Your task to perform on an android device: toggle airplane mode Image 0: 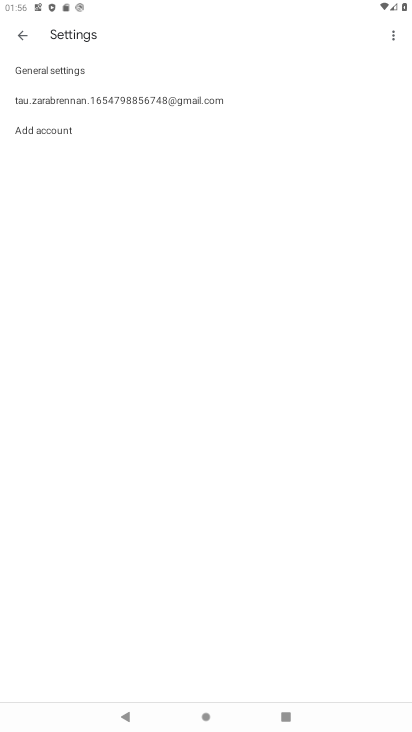
Step 0: press home button
Your task to perform on an android device: toggle airplane mode Image 1: 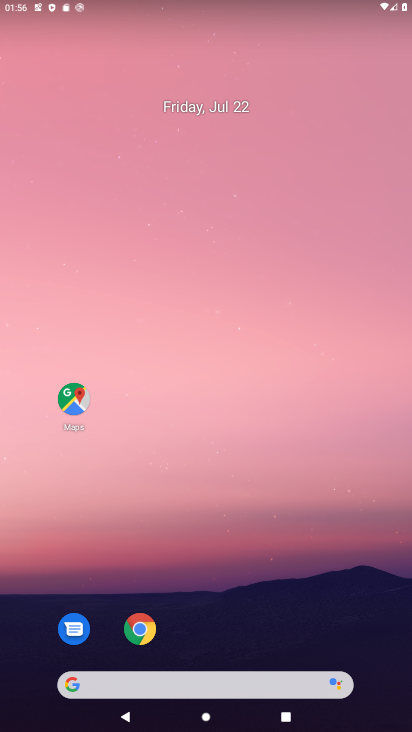
Step 1: drag from (369, 29) to (301, 478)
Your task to perform on an android device: toggle airplane mode Image 2: 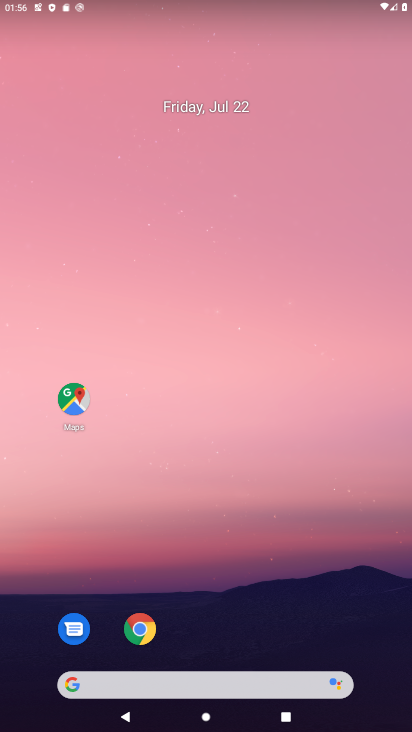
Step 2: drag from (333, 5) to (309, 521)
Your task to perform on an android device: toggle airplane mode Image 3: 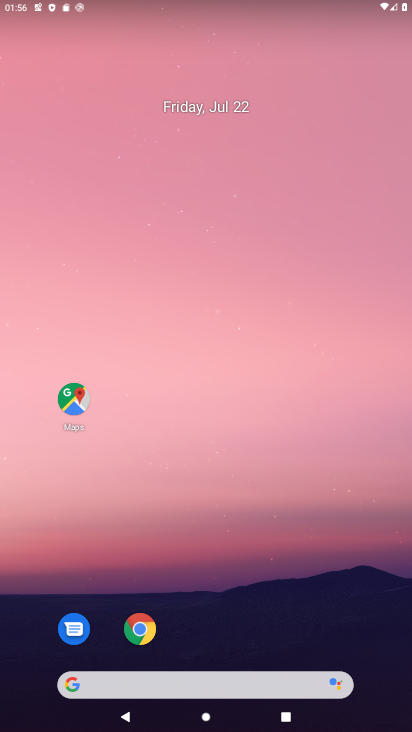
Step 3: drag from (278, 18) to (271, 385)
Your task to perform on an android device: toggle airplane mode Image 4: 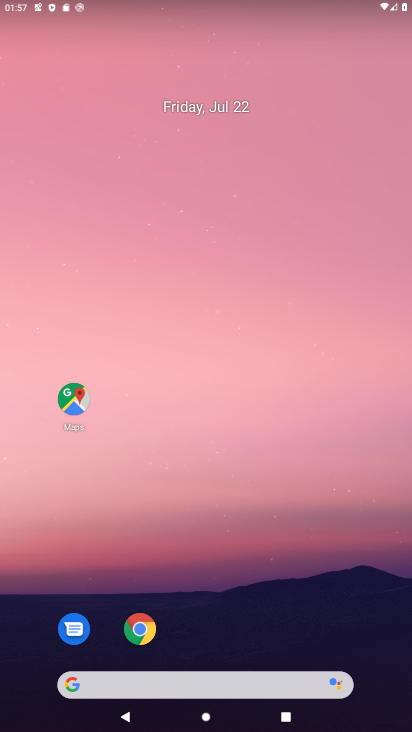
Step 4: drag from (401, 218) to (181, 473)
Your task to perform on an android device: toggle airplane mode Image 5: 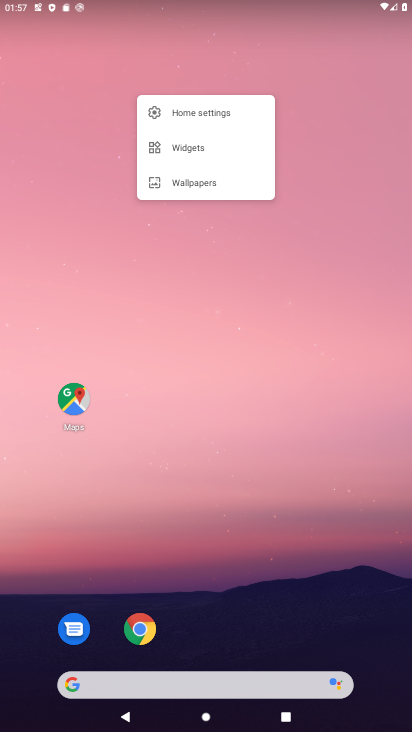
Step 5: click (332, 16)
Your task to perform on an android device: toggle airplane mode Image 6: 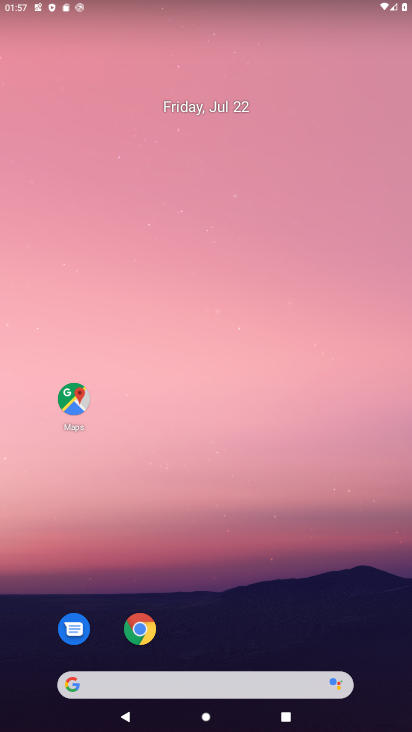
Step 6: drag from (279, 1) to (267, 370)
Your task to perform on an android device: toggle airplane mode Image 7: 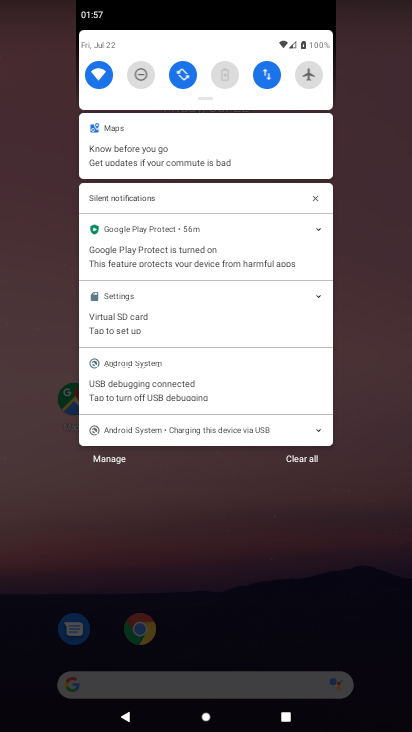
Step 7: click (302, 71)
Your task to perform on an android device: toggle airplane mode Image 8: 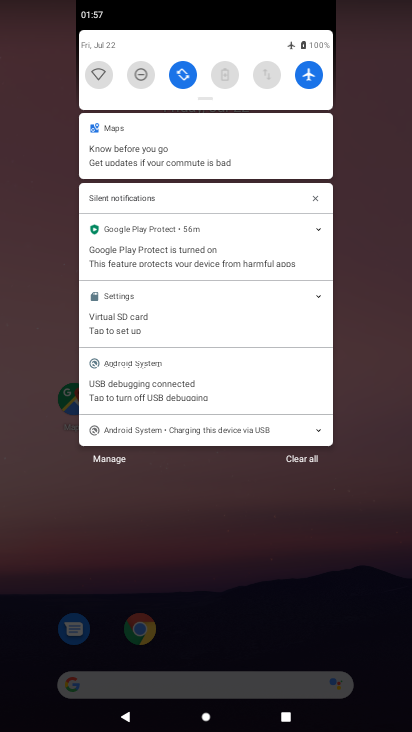
Step 8: task complete